Your task to perform on an android device: Search for Italian restaurants on Maps Image 0: 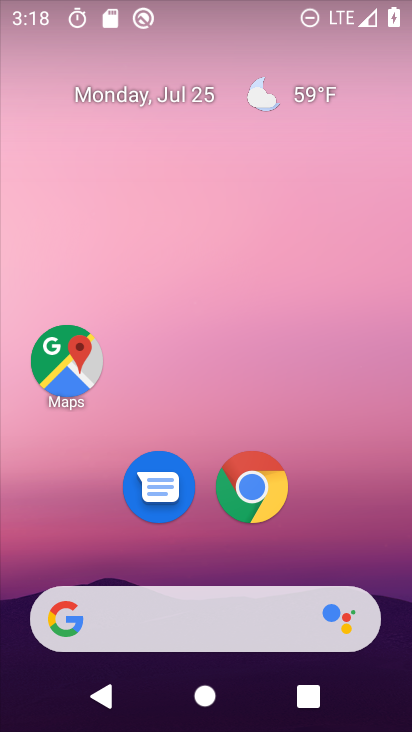
Step 0: click (63, 368)
Your task to perform on an android device: Search for Italian restaurants on Maps Image 1: 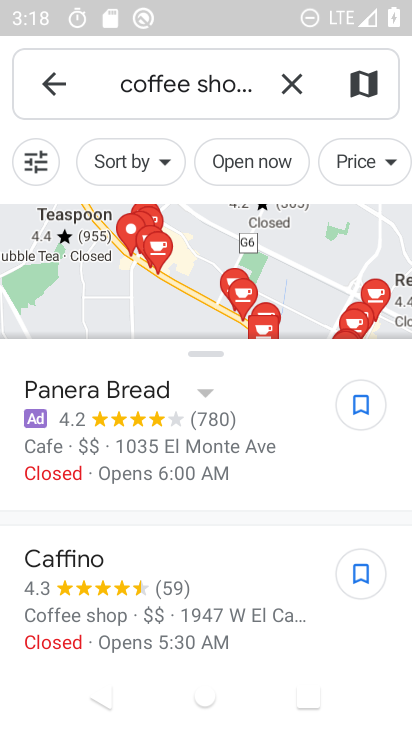
Step 1: click (287, 86)
Your task to perform on an android device: Search for Italian restaurants on Maps Image 2: 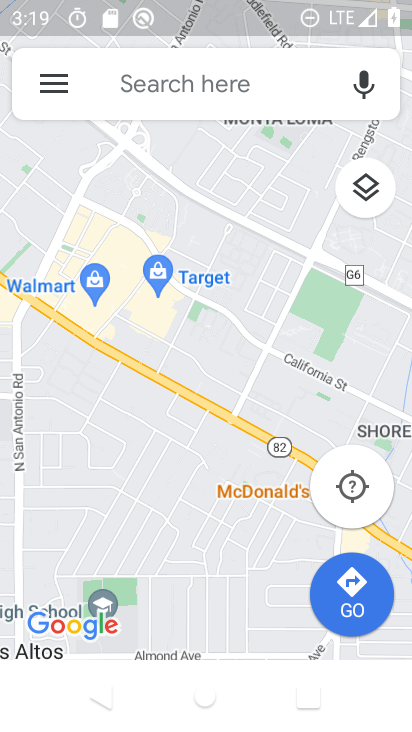
Step 2: click (186, 91)
Your task to perform on an android device: Search for Italian restaurants on Maps Image 3: 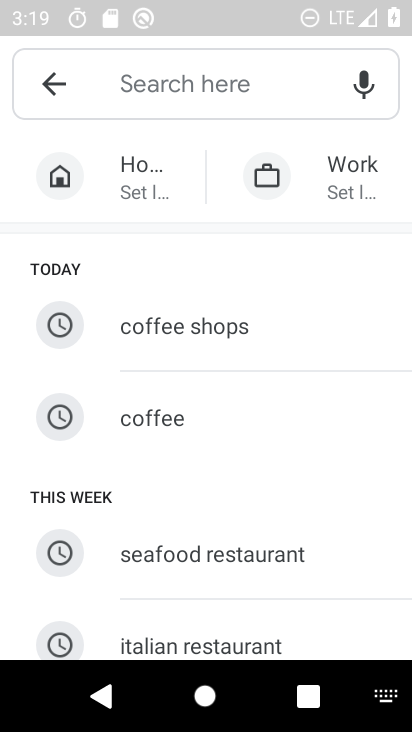
Step 3: click (160, 640)
Your task to perform on an android device: Search for Italian restaurants on Maps Image 4: 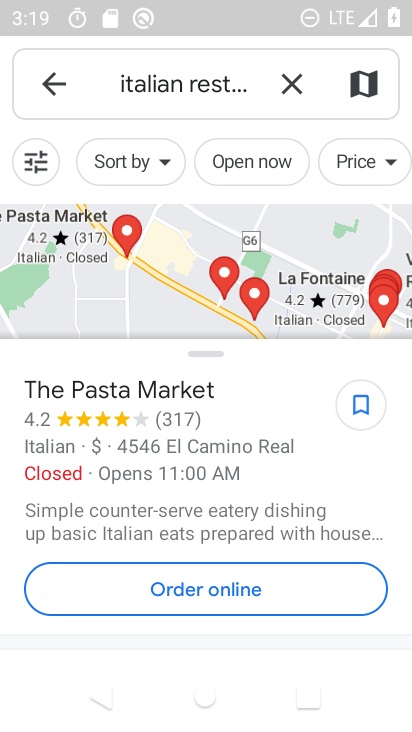
Step 4: task complete